Your task to perform on an android device: toggle improve location accuracy Image 0: 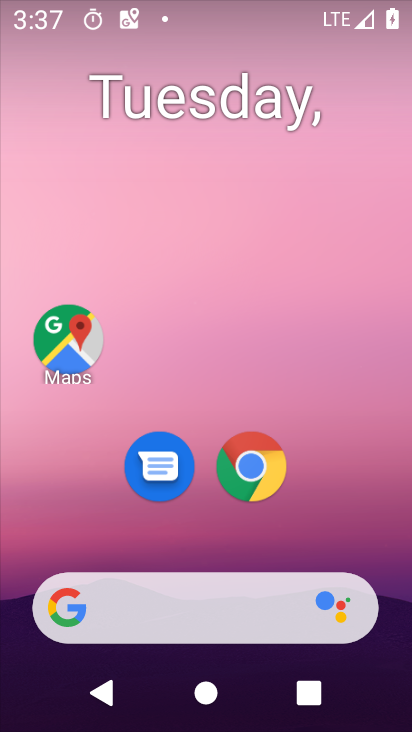
Step 0: drag from (374, 549) to (355, 209)
Your task to perform on an android device: toggle improve location accuracy Image 1: 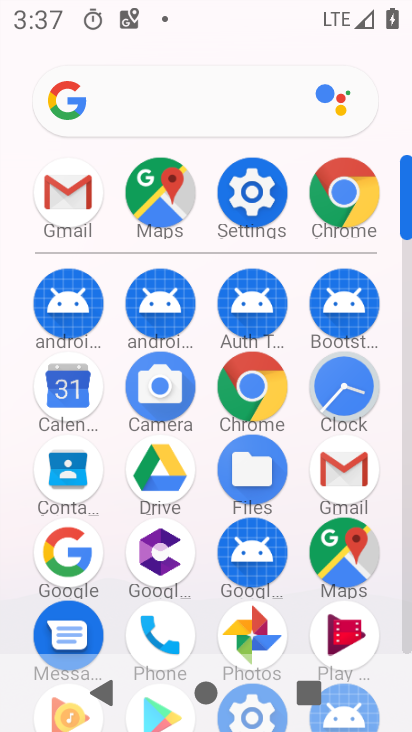
Step 1: click (264, 217)
Your task to perform on an android device: toggle improve location accuracy Image 2: 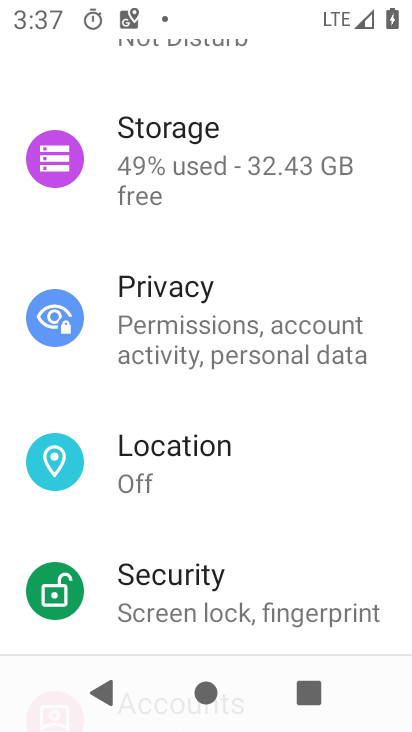
Step 2: drag from (374, 128) to (372, 283)
Your task to perform on an android device: toggle improve location accuracy Image 3: 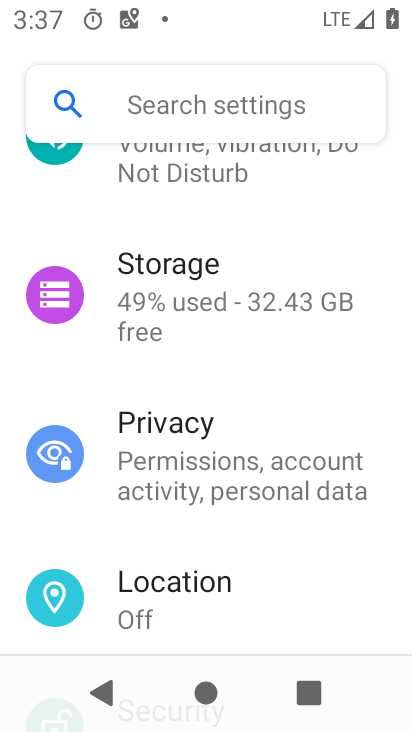
Step 3: drag from (335, 402) to (346, 259)
Your task to perform on an android device: toggle improve location accuracy Image 4: 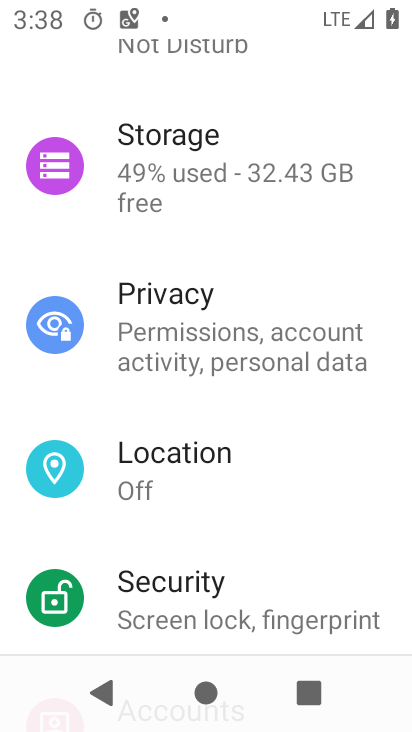
Step 4: drag from (335, 505) to (344, 332)
Your task to perform on an android device: toggle improve location accuracy Image 5: 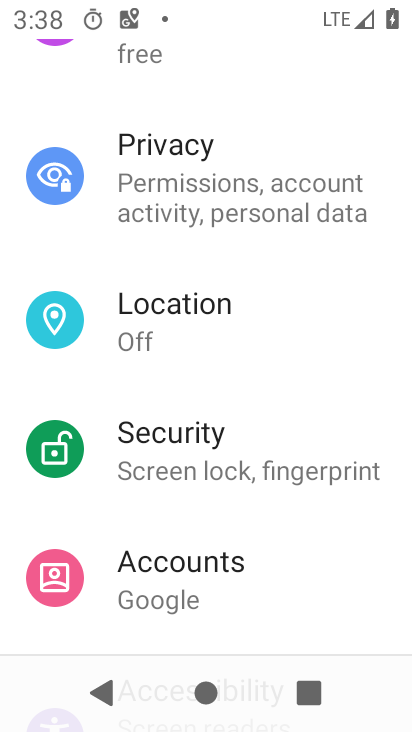
Step 5: click (221, 347)
Your task to perform on an android device: toggle improve location accuracy Image 6: 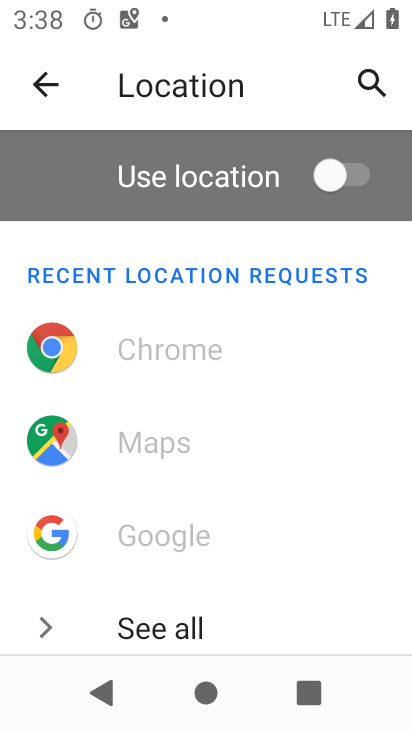
Step 6: drag from (296, 526) to (305, 375)
Your task to perform on an android device: toggle improve location accuracy Image 7: 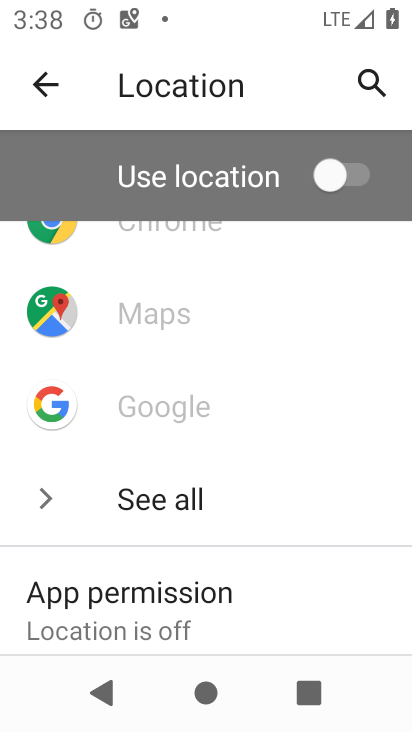
Step 7: drag from (286, 546) to (294, 429)
Your task to perform on an android device: toggle improve location accuracy Image 8: 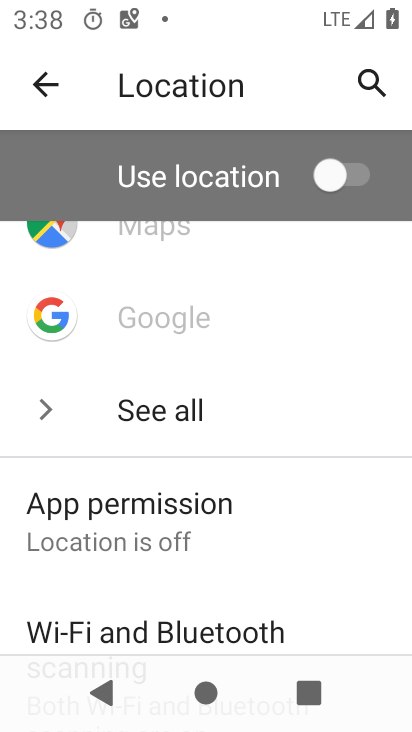
Step 8: drag from (297, 588) to (311, 452)
Your task to perform on an android device: toggle improve location accuracy Image 9: 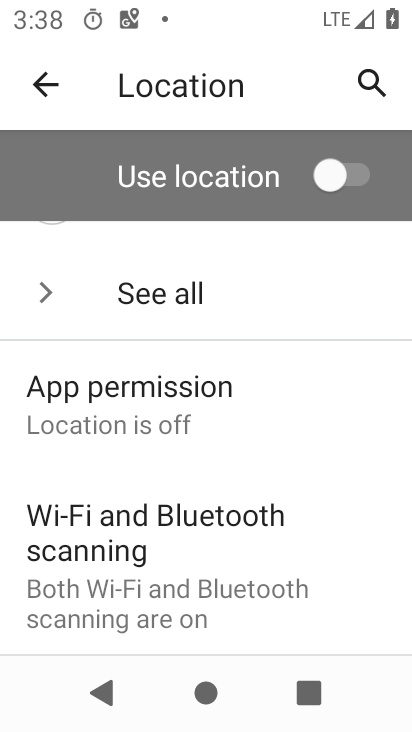
Step 9: drag from (343, 597) to (338, 434)
Your task to perform on an android device: toggle improve location accuracy Image 10: 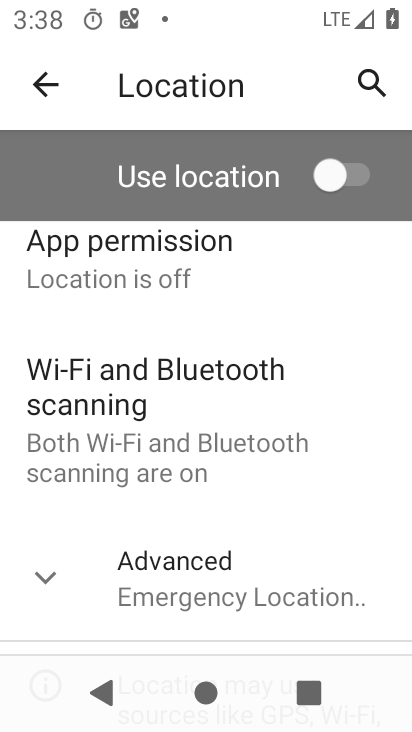
Step 10: drag from (332, 616) to (338, 451)
Your task to perform on an android device: toggle improve location accuracy Image 11: 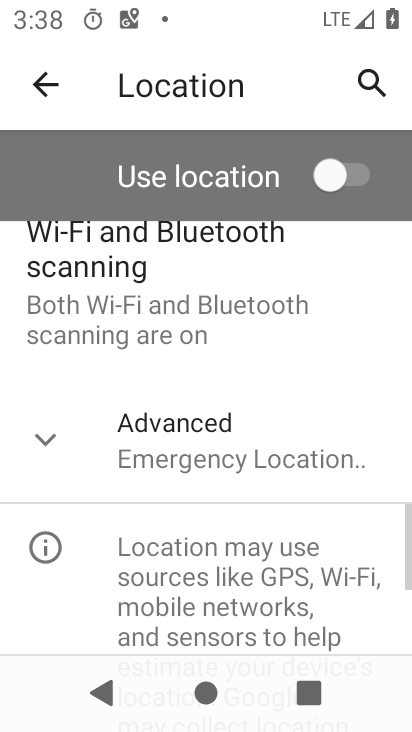
Step 11: click (328, 495)
Your task to perform on an android device: toggle improve location accuracy Image 12: 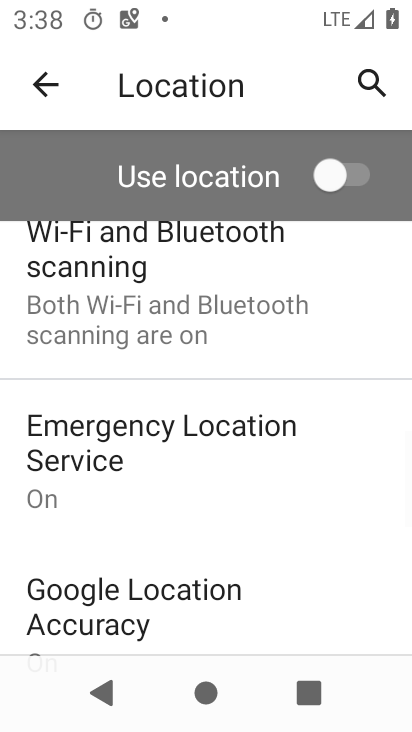
Step 12: drag from (321, 556) to (321, 416)
Your task to perform on an android device: toggle improve location accuracy Image 13: 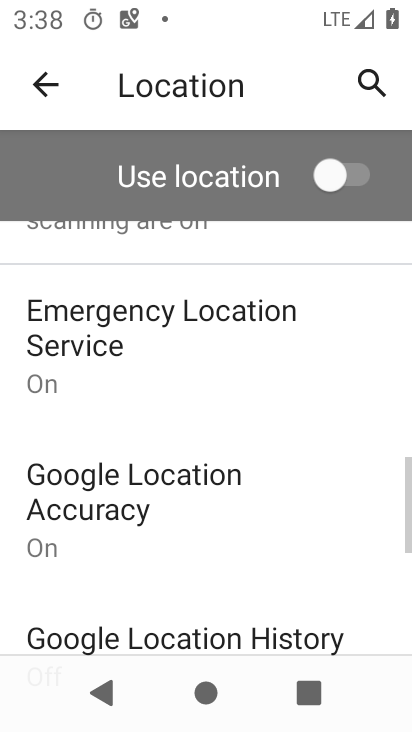
Step 13: click (273, 519)
Your task to perform on an android device: toggle improve location accuracy Image 14: 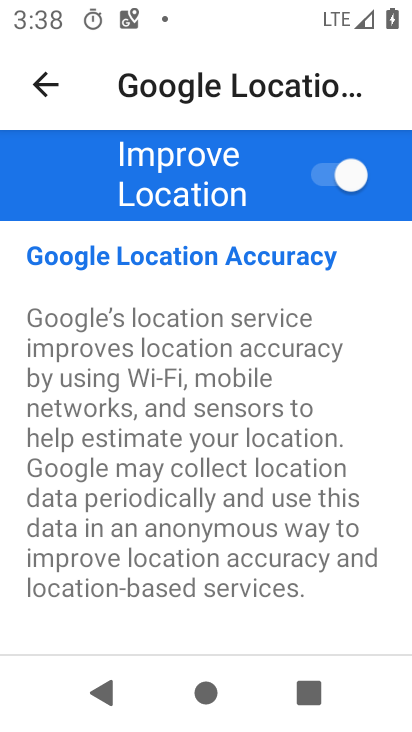
Step 14: task complete